Your task to perform on an android device: Go to battery settings Image 0: 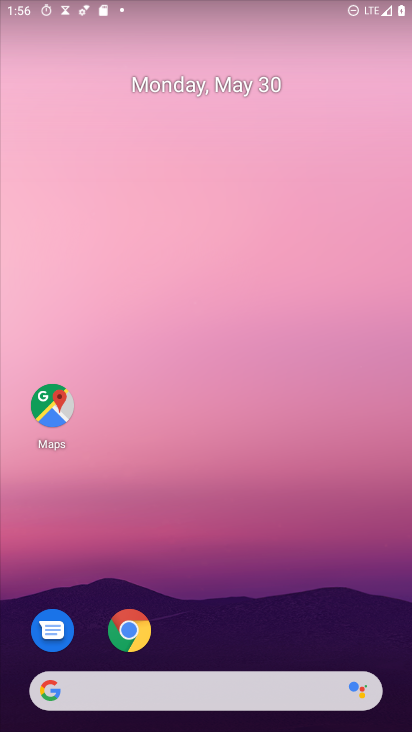
Step 0: drag from (316, 678) to (186, 99)
Your task to perform on an android device: Go to battery settings Image 1: 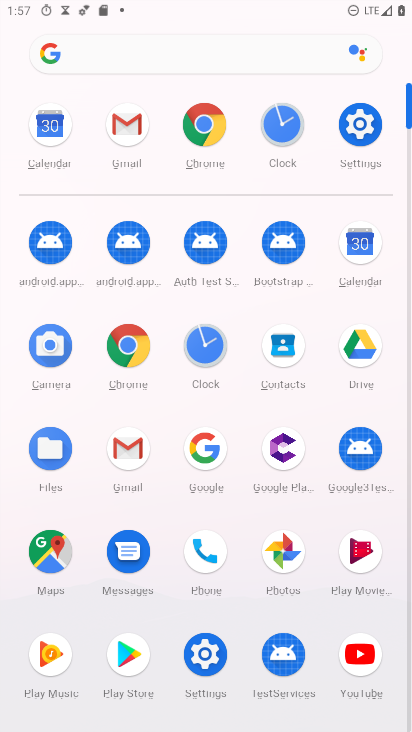
Step 1: click (355, 131)
Your task to perform on an android device: Go to battery settings Image 2: 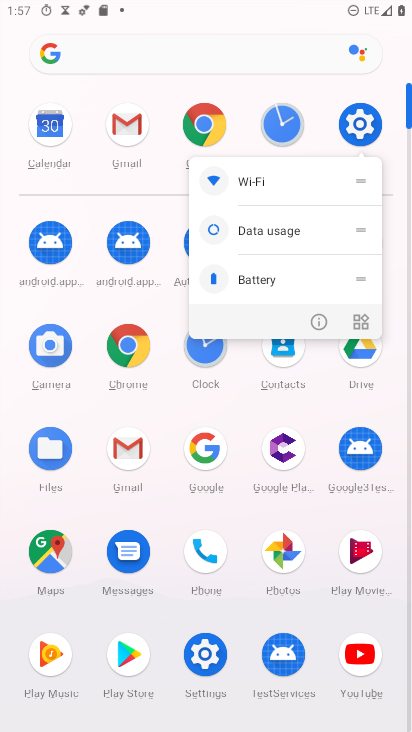
Step 2: click (349, 128)
Your task to perform on an android device: Go to battery settings Image 3: 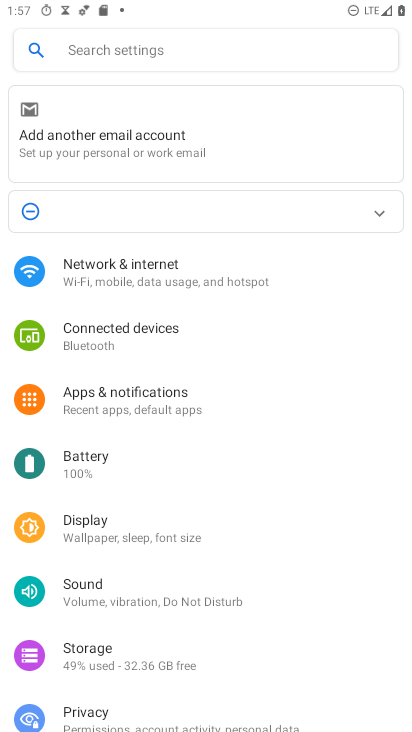
Step 3: click (101, 470)
Your task to perform on an android device: Go to battery settings Image 4: 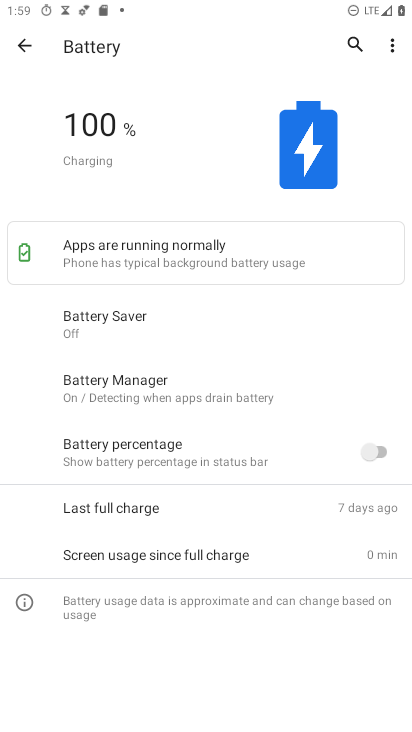
Step 4: task complete